Your task to perform on an android device: change the clock display to digital Image 0: 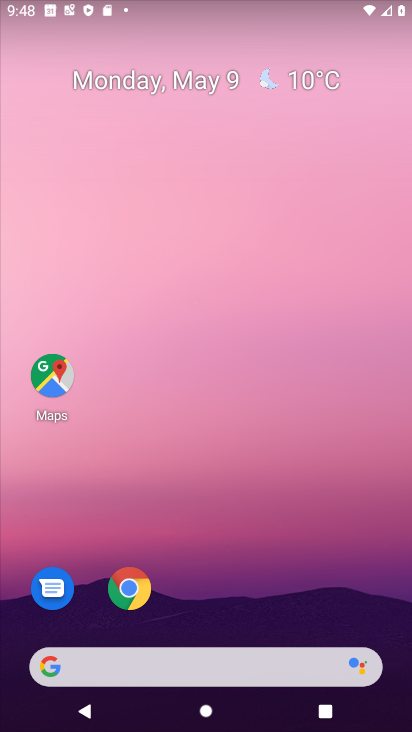
Step 0: drag from (170, 665) to (303, 115)
Your task to perform on an android device: change the clock display to digital Image 1: 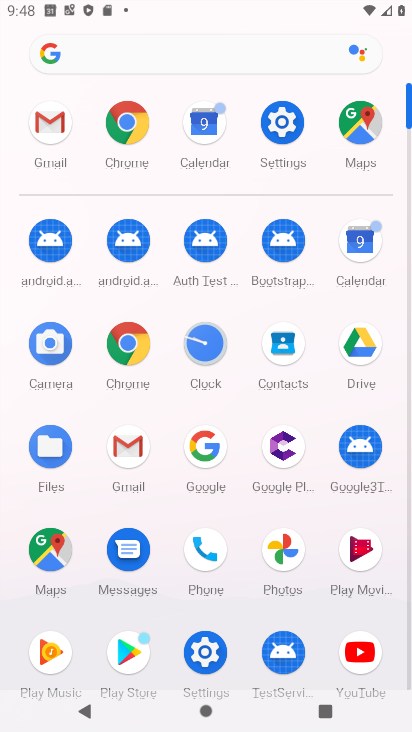
Step 1: click (203, 347)
Your task to perform on an android device: change the clock display to digital Image 2: 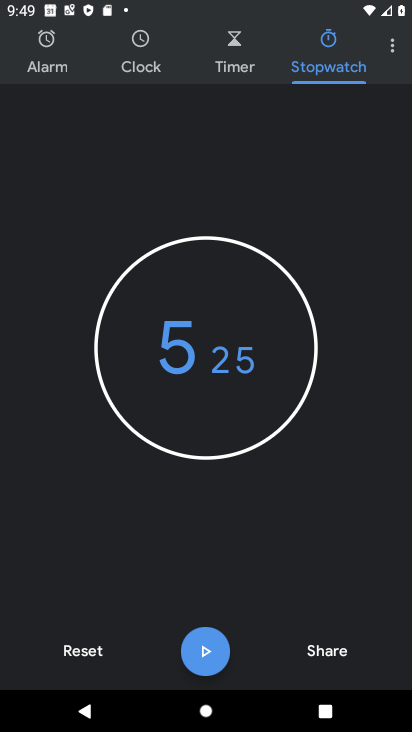
Step 2: click (392, 54)
Your task to perform on an android device: change the clock display to digital Image 3: 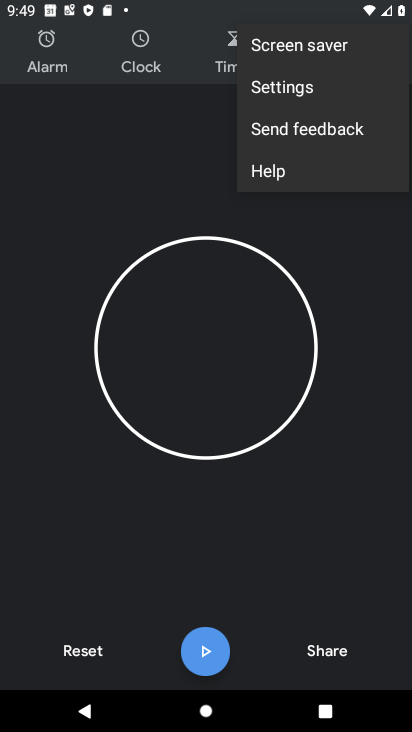
Step 3: click (314, 93)
Your task to perform on an android device: change the clock display to digital Image 4: 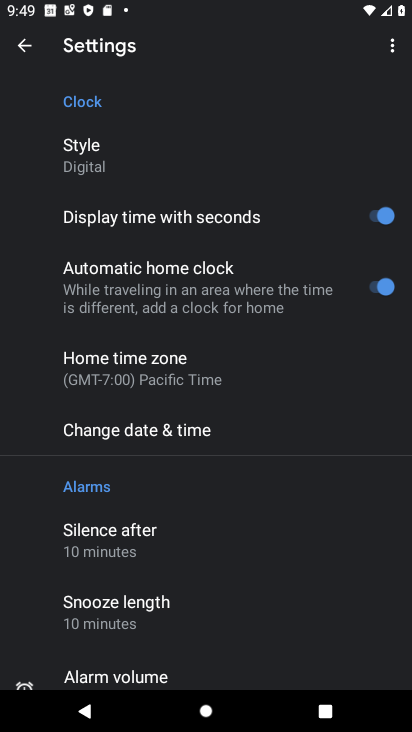
Step 4: task complete